Your task to perform on an android device: Go to Google Image 0: 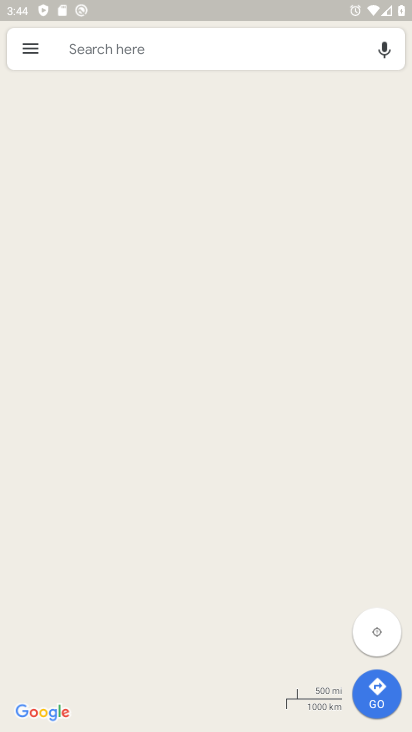
Step 0: press back button
Your task to perform on an android device: Go to Google Image 1: 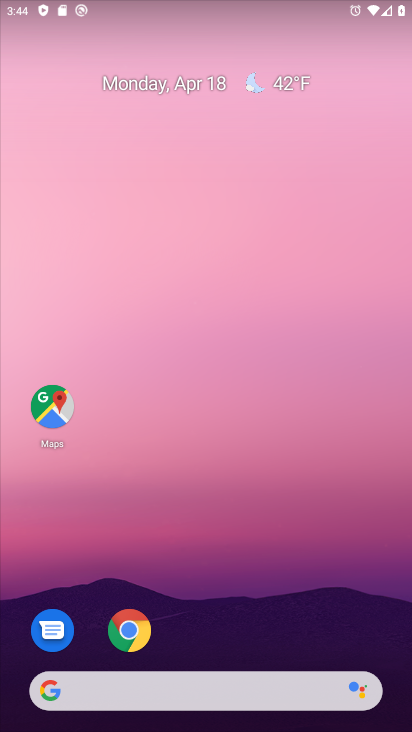
Step 1: drag from (266, 437) to (354, 13)
Your task to perform on an android device: Go to Google Image 2: 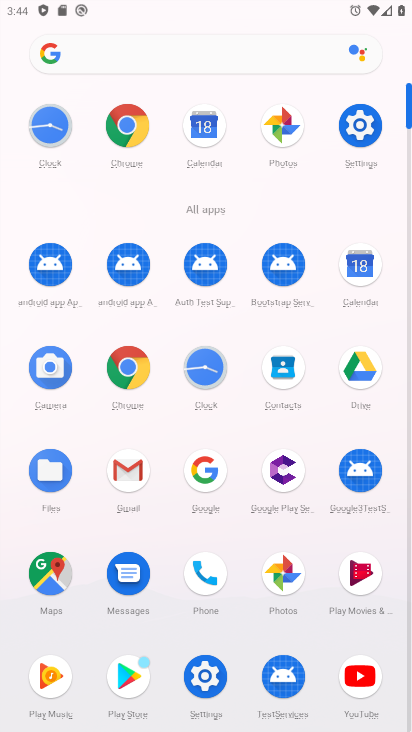
Step 2: click (204, 479)
Your task to perform on an android device: Go to Google Image 3: 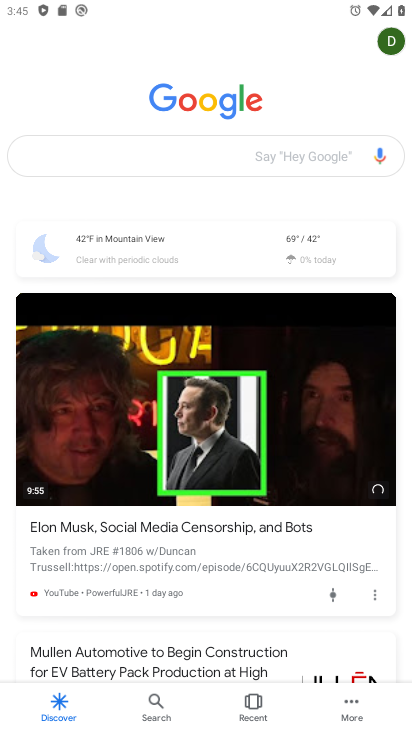
Step 3: task complete